Your task to perform on an android device: open app "Facebook" Image 0: 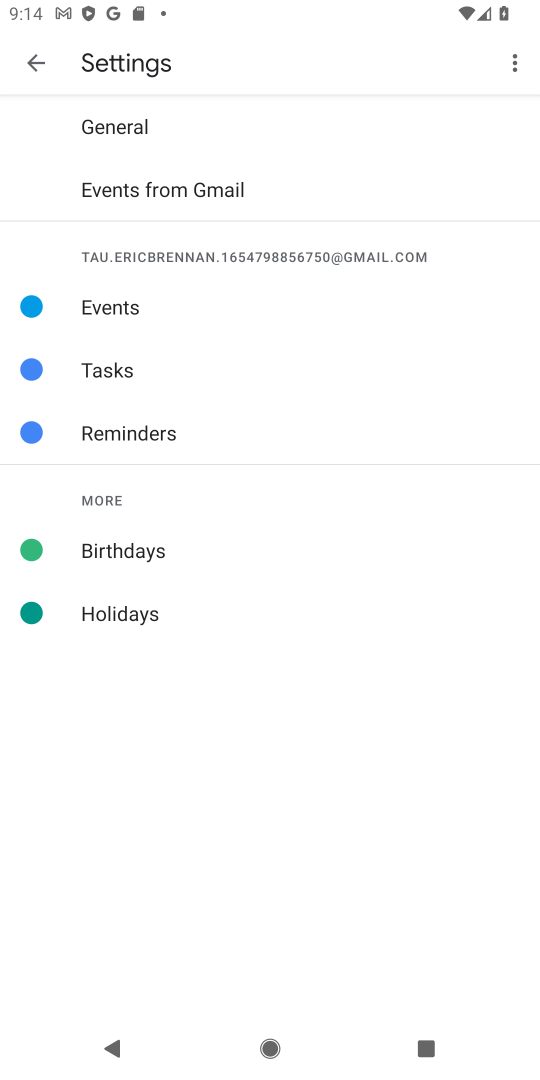
Step 0: click (26, 77)
Your task to perform on an android device: open app "Facebook" Image 1: 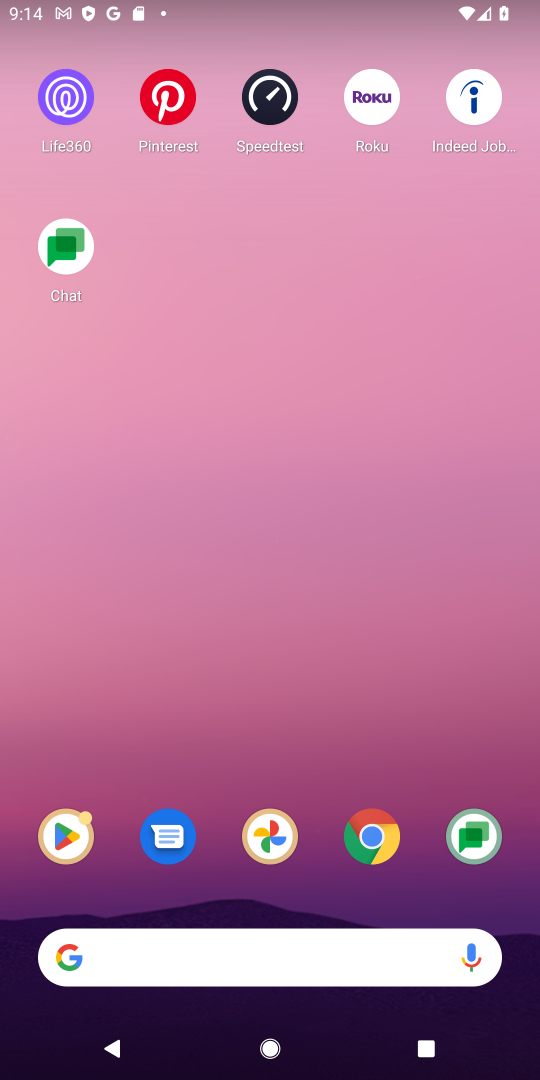
Step 1: drag from (255, 574) to (191, 290)
Your task to perform on an android device: open app "Facebook" Image 2: 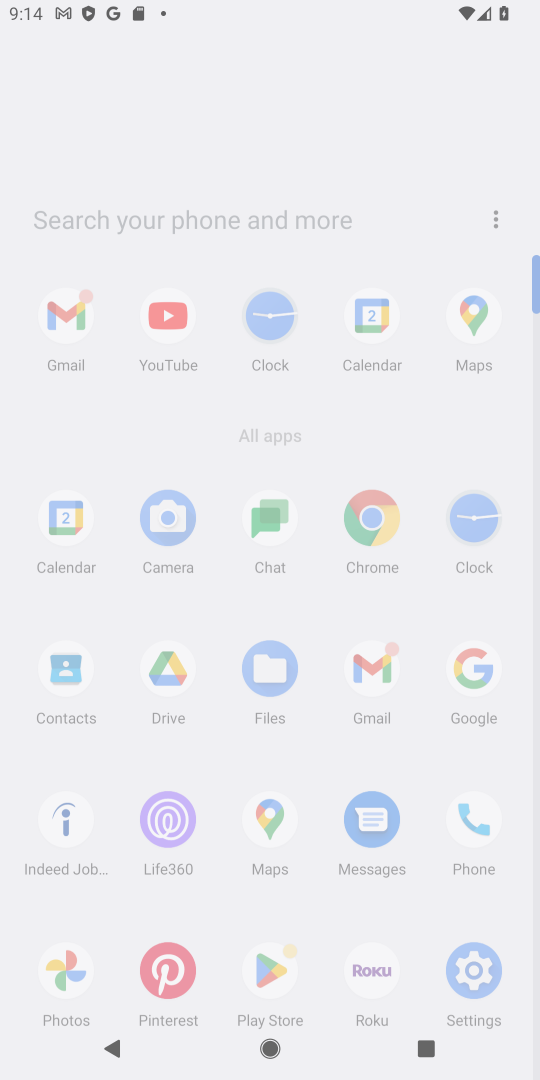
Step 2: drag from (325, 533) to (291, 216)
Your task to perform on an android device: open app "Facebook" Image 3: 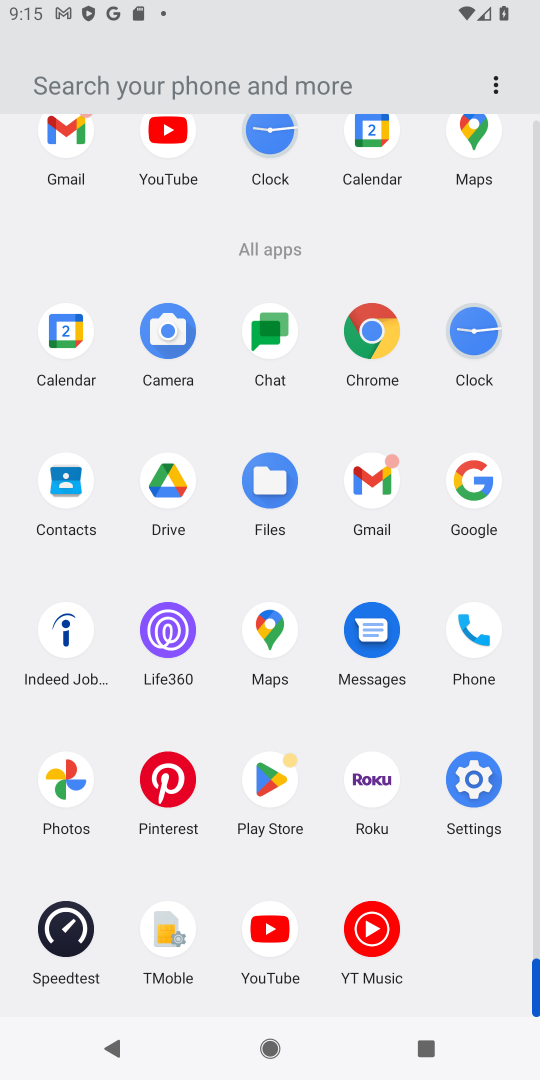
Step 3: click (277, 802)
Your task to perform on an android device: open app "Facebook" Image 4: 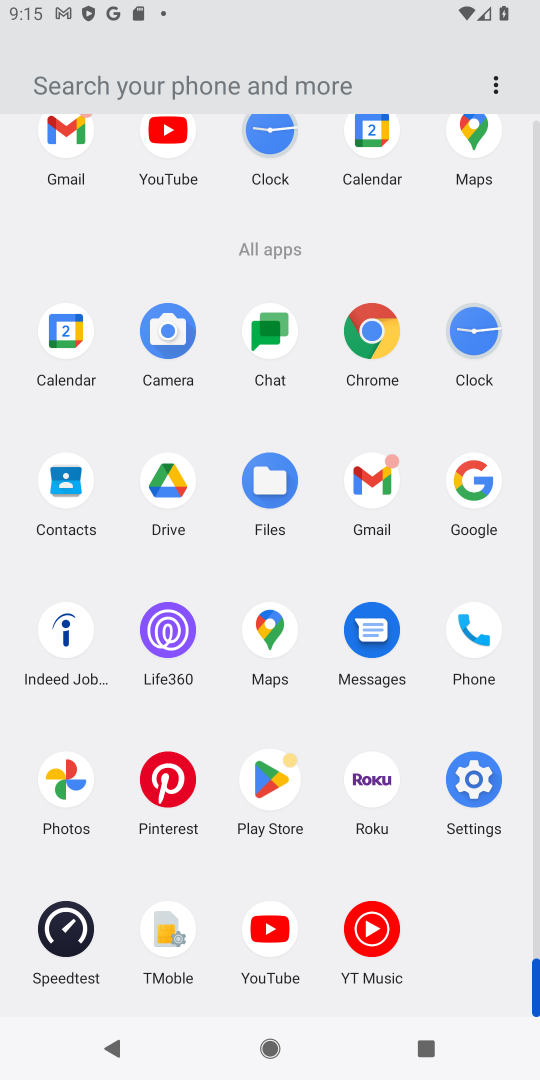
Step 4: click (275, 804)
Your task to perform on an android device: open app "Facebook" Image 5: 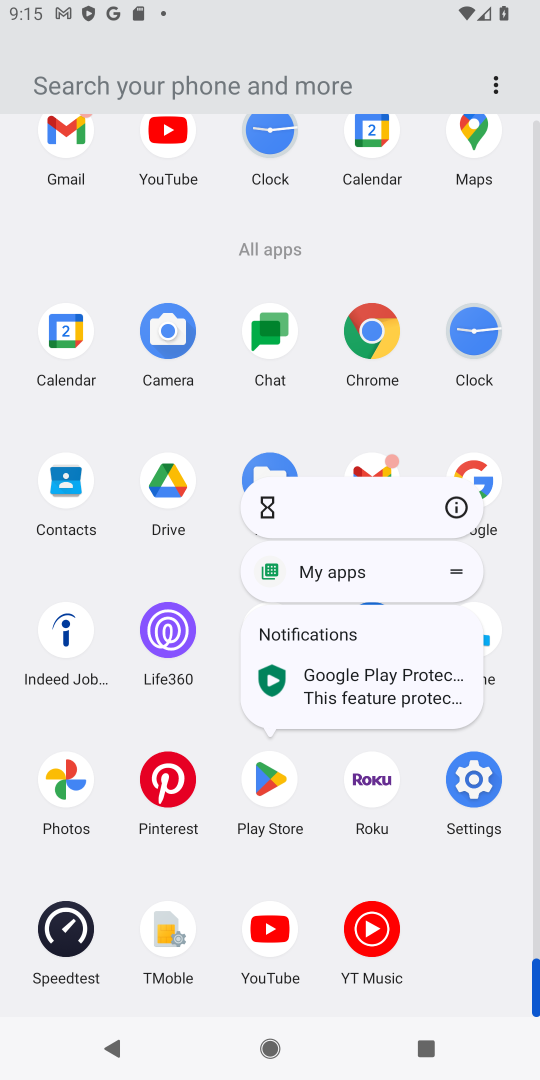
Step 5: click (274, 805)
Your task to perform on an android device: open app "Facebook" Image 6: 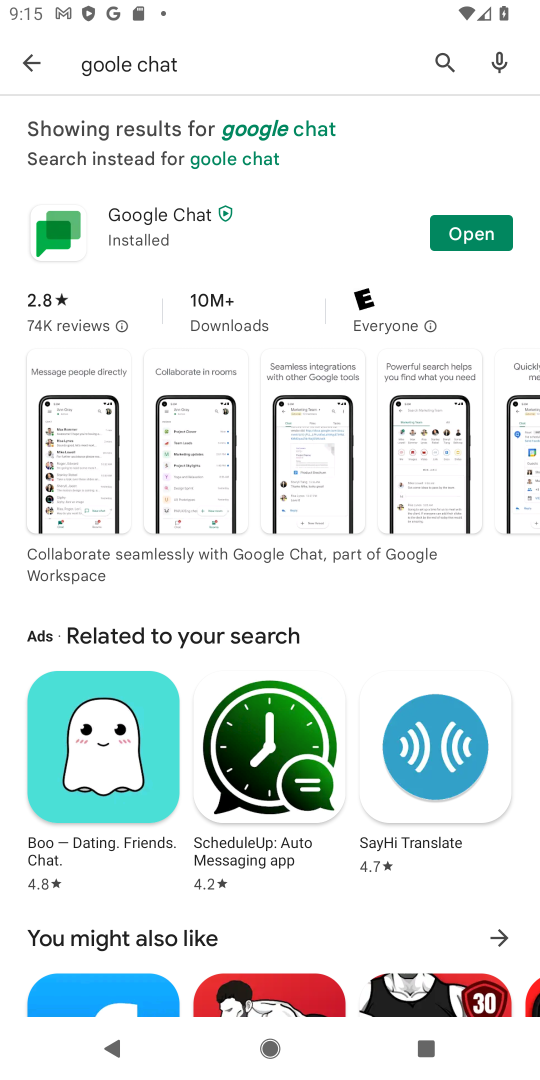
Step 6: click (439, 54)
Your task to perform on an android device: open app "Facebook" Image 7: 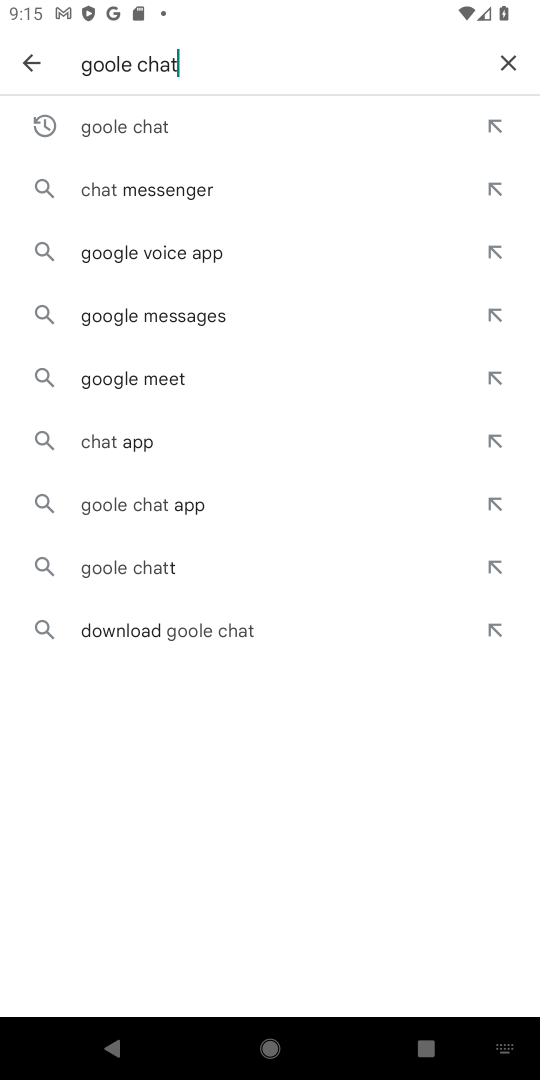
Step 7: click (507, 66)
Your task to perform on an android device: open app "Facebook" Image 8: 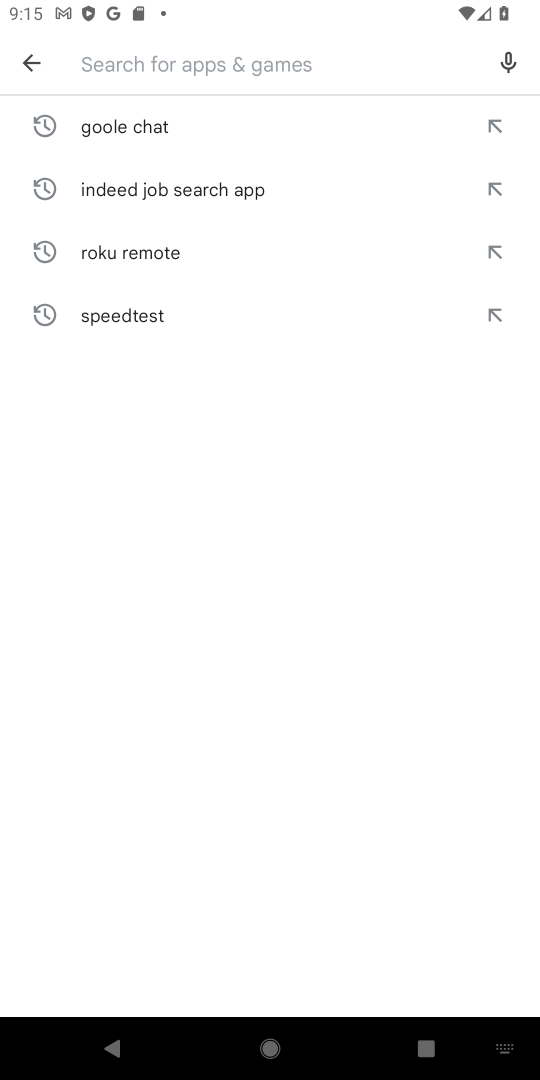
Step 8: type "facebook"
Your task to perform on an android device: open app "Facebook" Image 9: 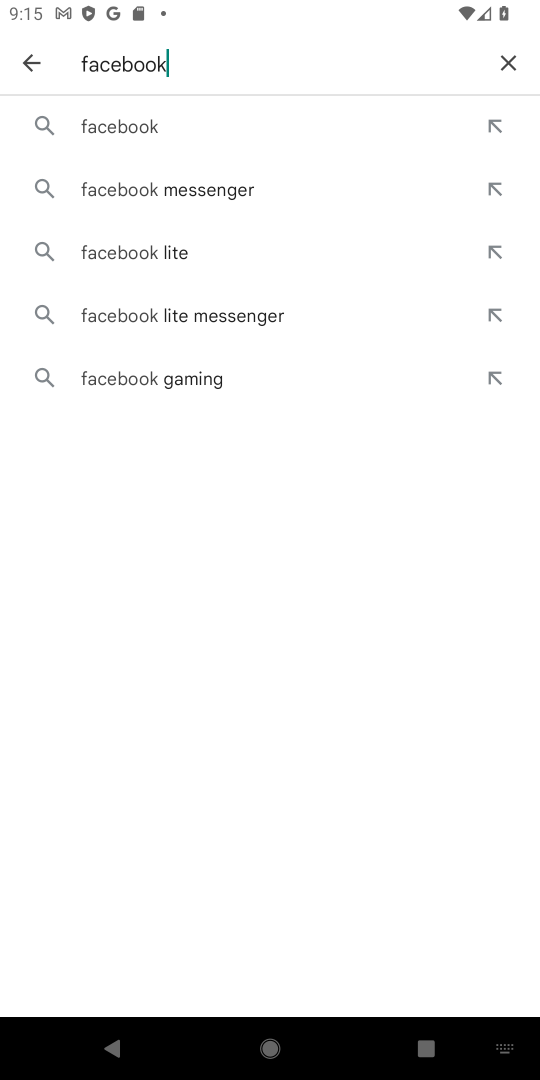
Step 9: click (124, 125)
Your task to perform on an android device: open app "Facebook" Image 10: 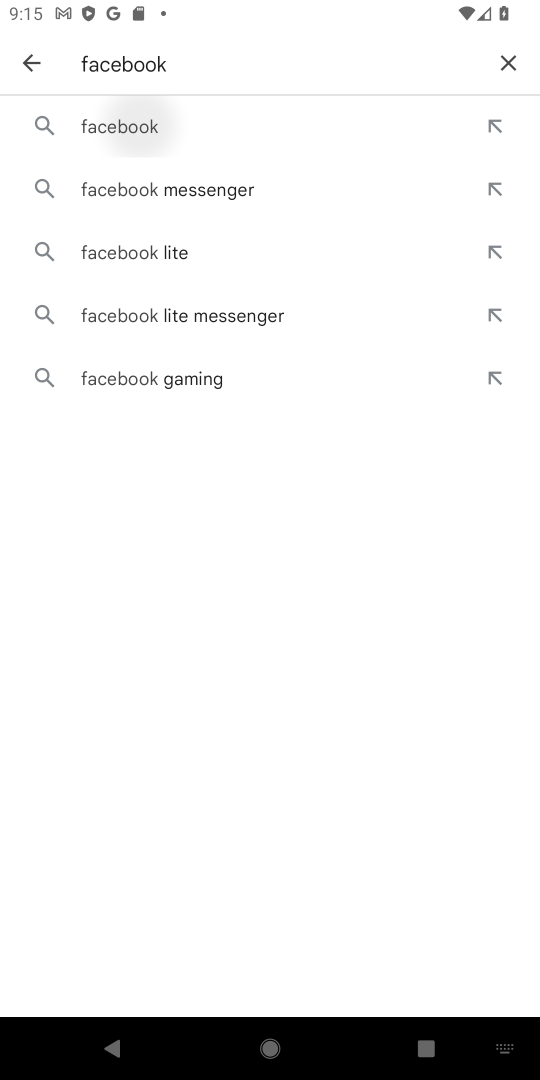
Step 10: click (124, 125)
Your task to perform on an android device: open app "Facebook" Image 11: 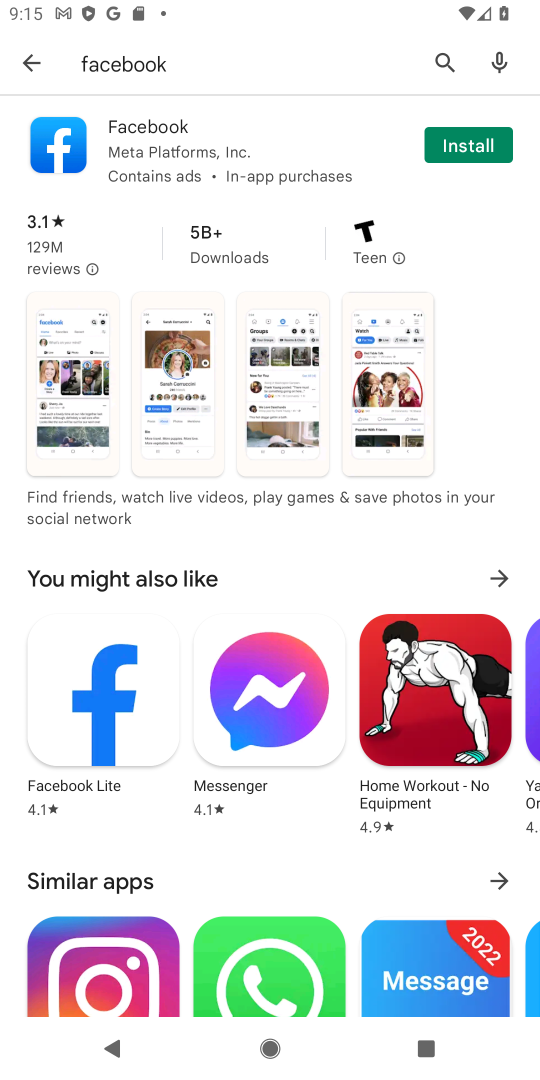
Step 11: click (446, 147)
Your task to perform on an android device: open app "Facebook" Image 12: 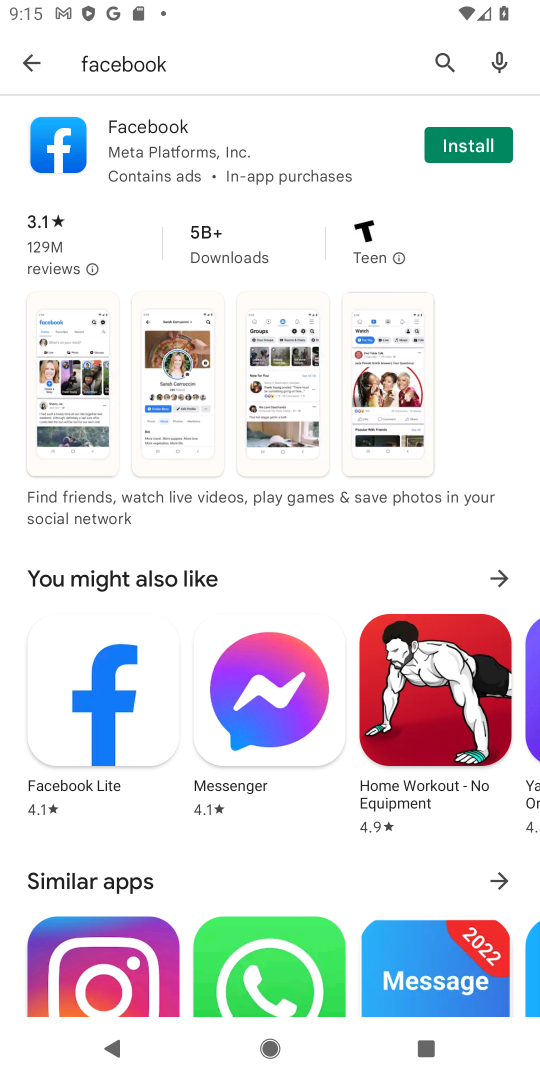
Step 12: click (448, 152)
Your task to perform on an android device: open app "Facebook" Image 13: 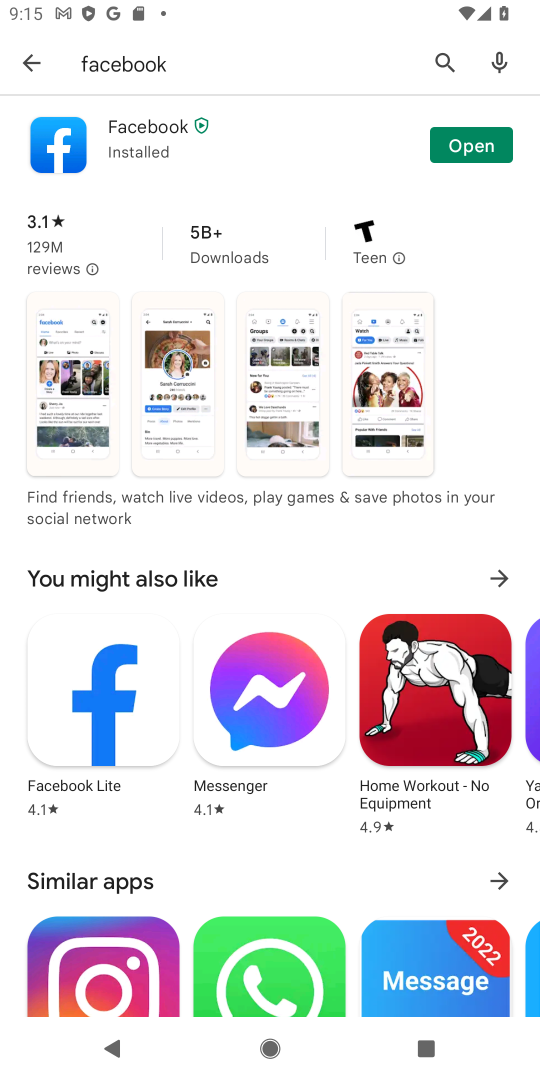
Step 13: click (466, 128)
Your task to perform on an android device: open app "Facebook" Image 14: 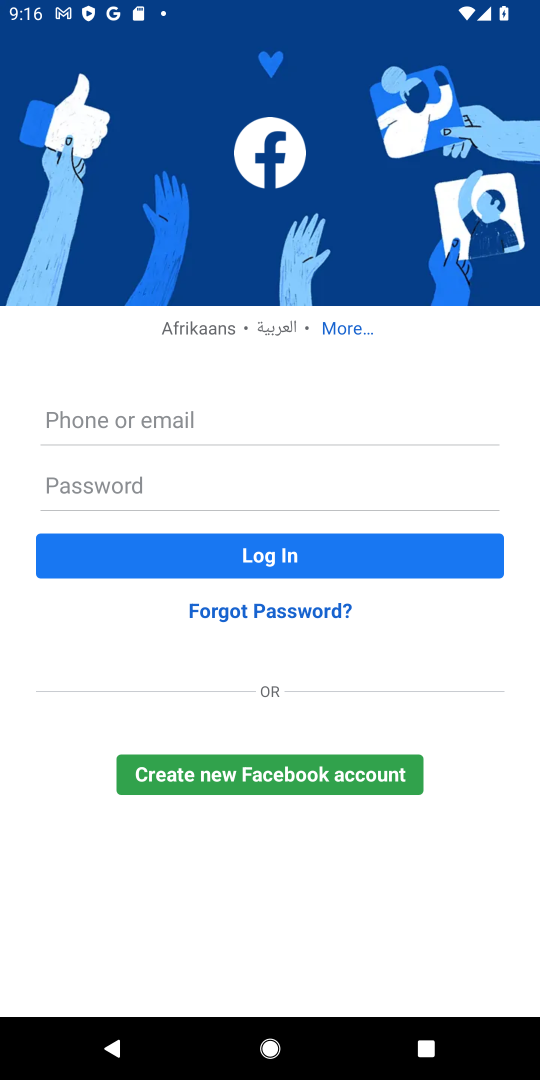
Step 14: task complete